Your task to perform on an android device: Go to privacy settings Image 0: 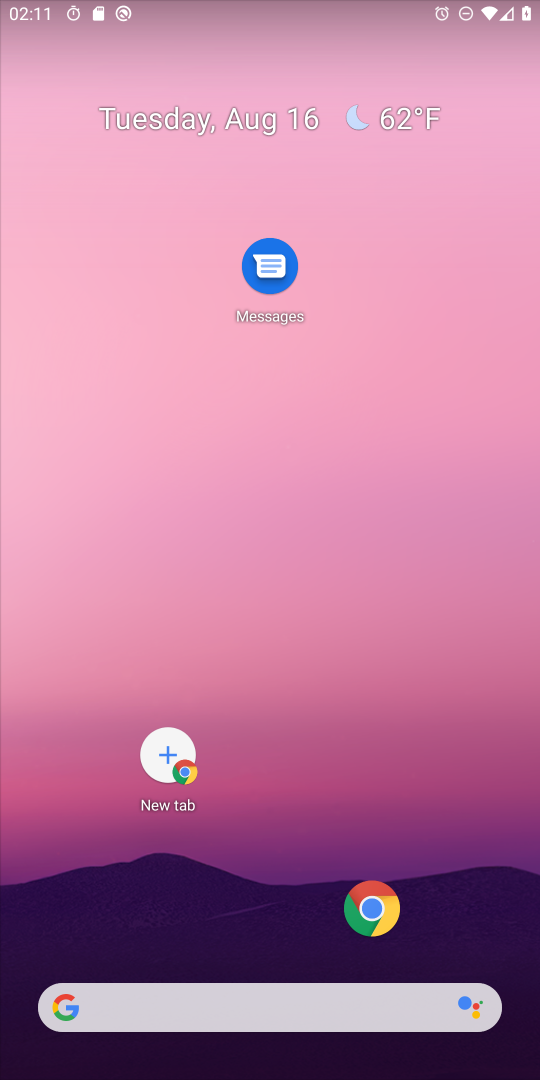
Step 0: drag from (242, 967) to (31, 224)
Your task to perform on an android device: Go to privacy settings Image 1: 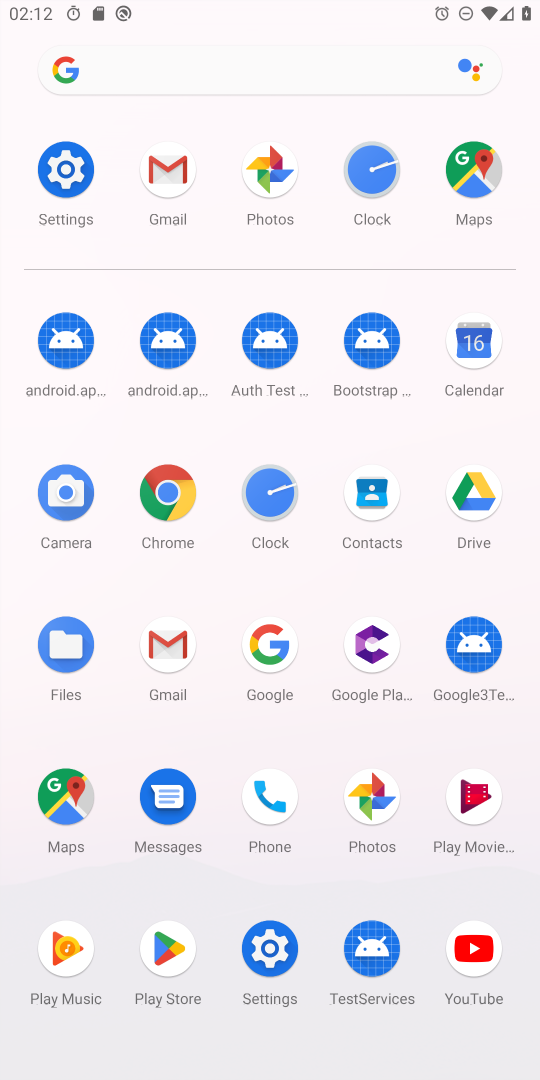
Step 1: click (59, 223)
Your task to perform on an android device: Go to privacy settings Image 2: 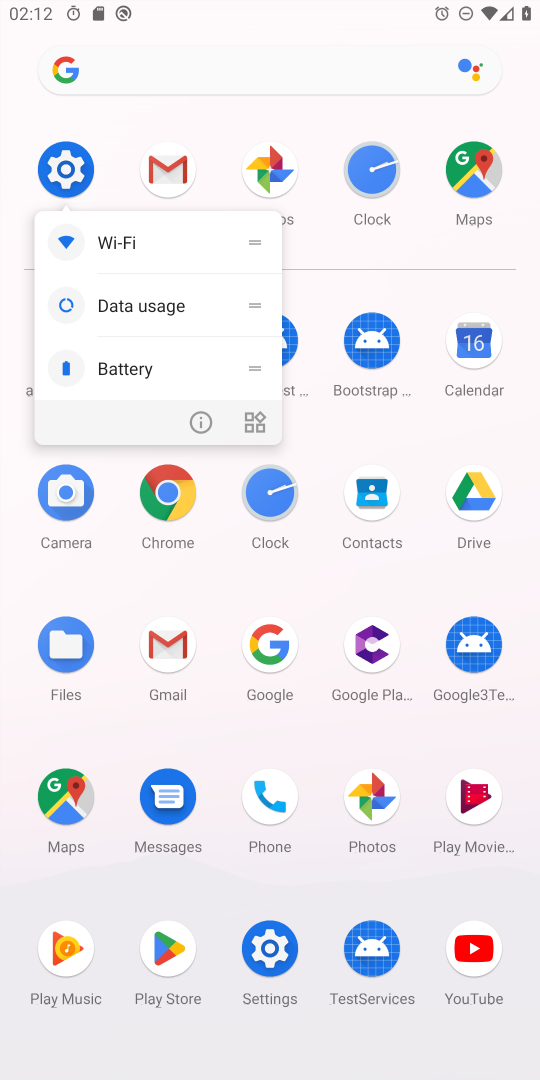
Step 2: click (61, 189)
Your task to perform on an android device: Go to privacy settings Image 3: 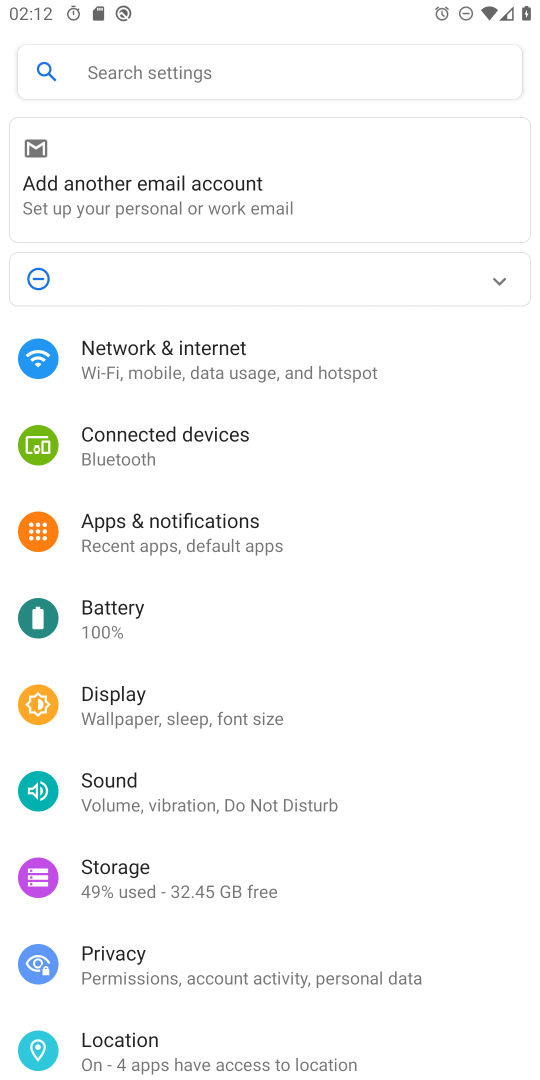
Step 3: click (185, 956)
Your task to perform on an android device: Go to privacy settings Image 4: 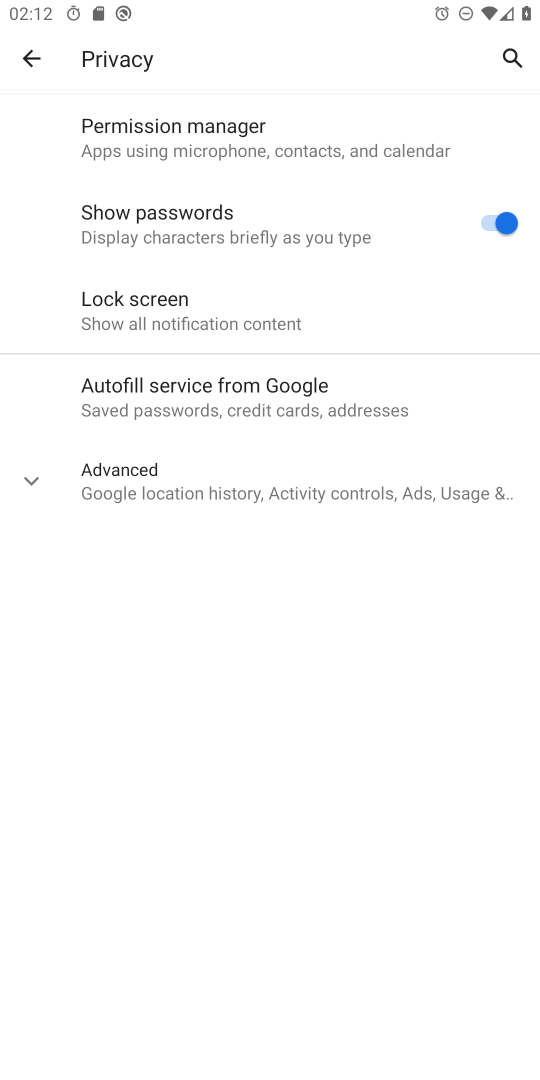
Step 4: task complete